Your task to perform on an android device: show emergency info Image 0: 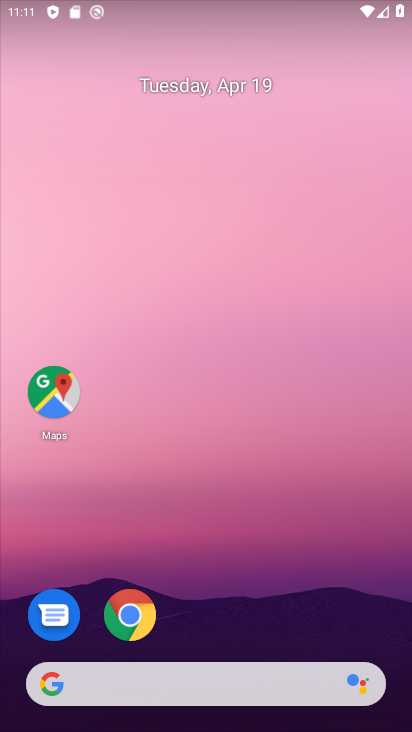
Step 0: drag from (214, 604) to (238, 164)
Your task to perform on an android device: show emergency info Image 1: 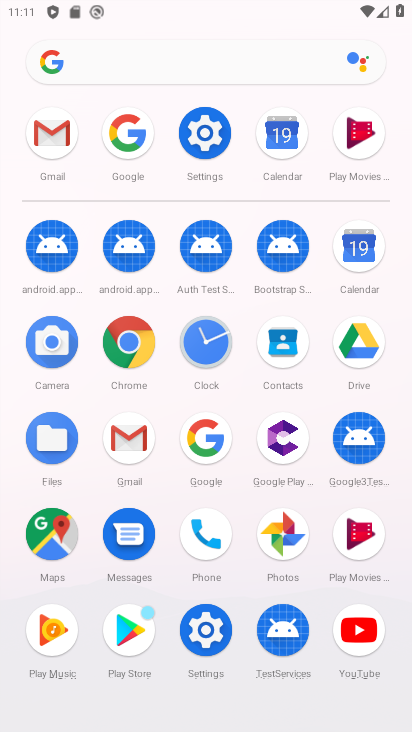
Step 1: click (202, 132)
Your task to perform on an android device: show emergency info Image 2: 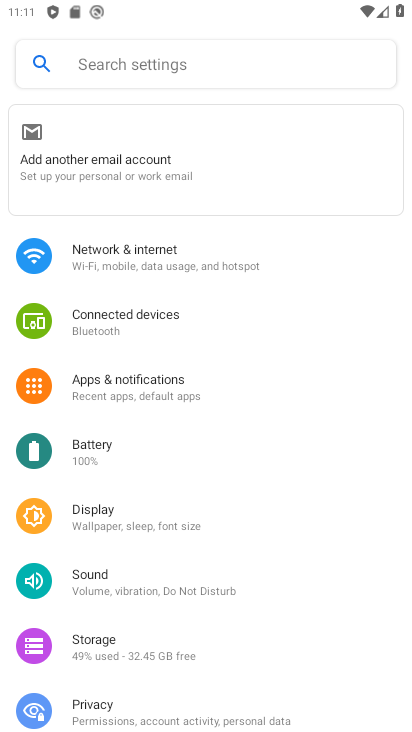
Step 2: drag from (243, 638) to (270, 0)
Your task to perform on an android device: show emergency info Image 3: 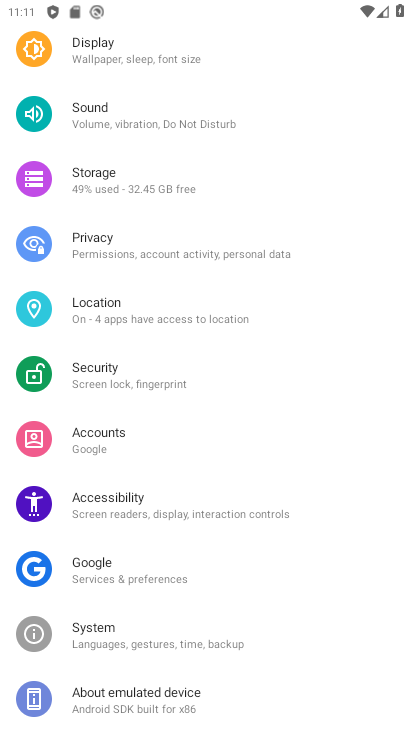
Step 3: click (113, 708)
Your task to perform on an android device: show emergency info Image 4: 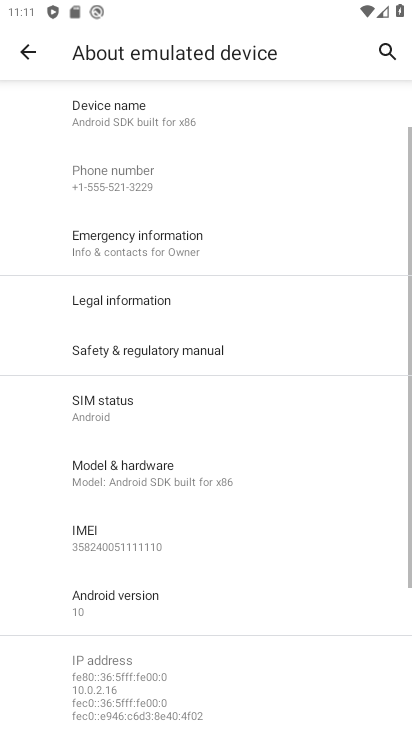
Step 4: click (135, 235)
Your task to perform on an android device: show emergency info Image 5: 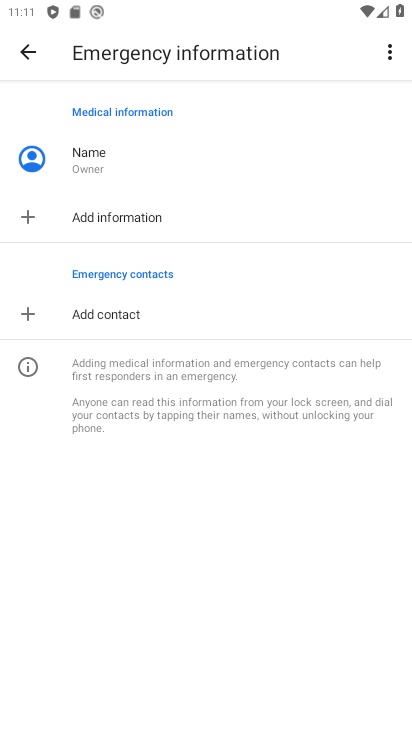
Step 5: task complete